Your task to perform on an android device: Show the shopping cart on target.com. Add "alienware area 51" to the cart on target.com Image 0: 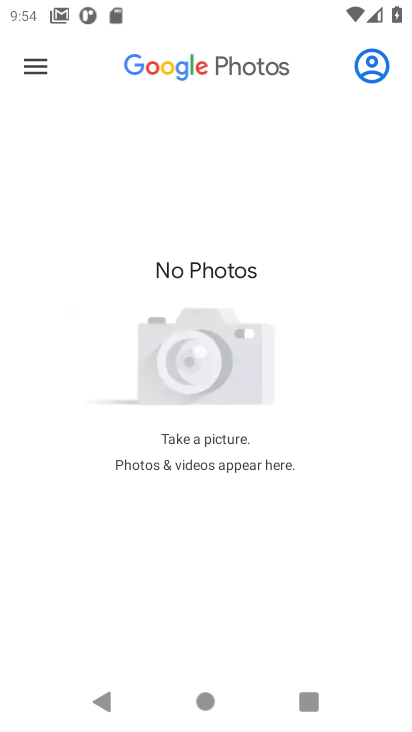
Step 0: press home button
Your task to perform on an android device: Show the shopping cart on target.com. Add "alienware area 51" to the cart on target.com Image 1: 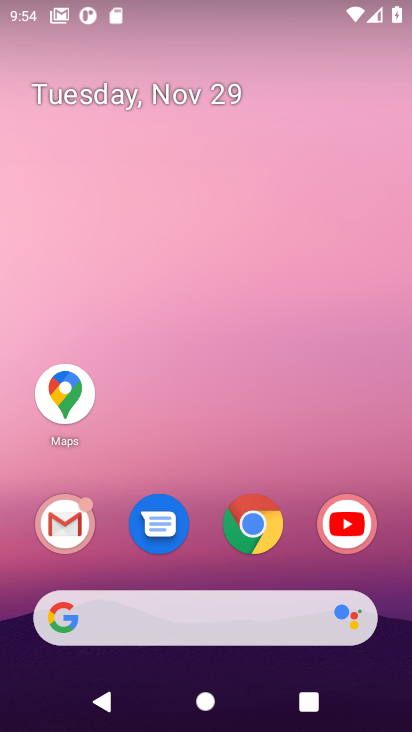
Step 1: click (252, 538)
Your task to perform on an android device: Show the shopping cart on target.com. Add "alienware area 51" to the cart on target.com Image 2: 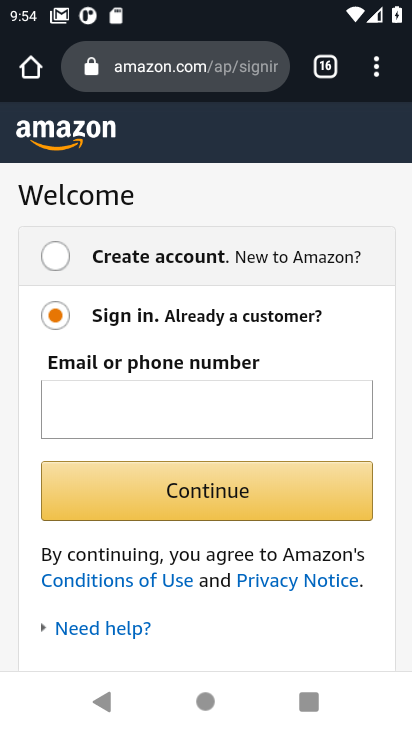
Step 2: click (198, 77)
Your task to perform on an android device: Show the shopping cart on target.com. Add "alienware area 51" to the cart on target.com Image 3: 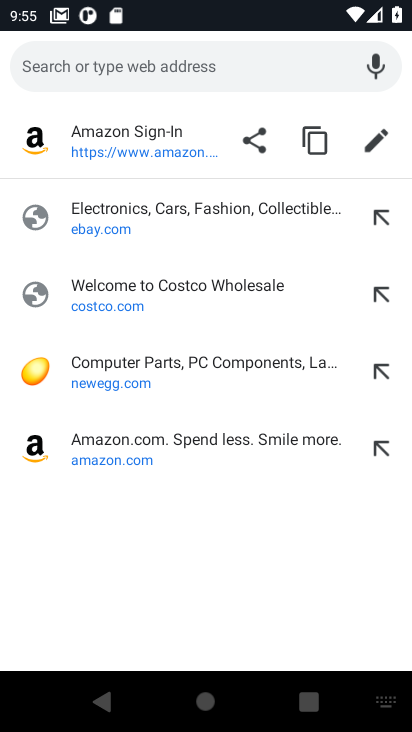
Step 3: type "target.com"
Your task to perform on an android device: Show the shopping cart on target.com. Add "alienware area 51" to the cart on target.com Image 4: 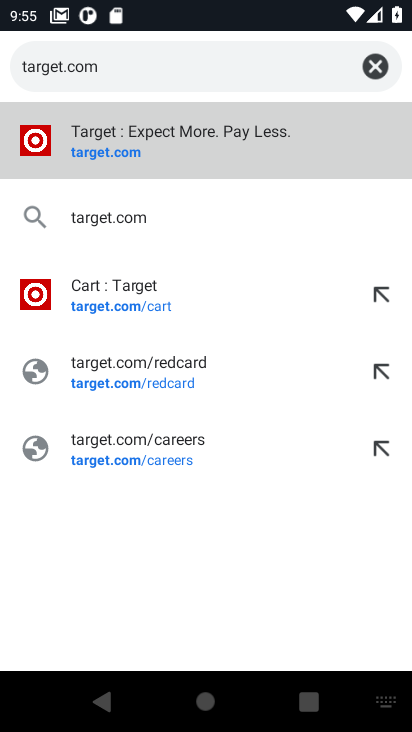
Step 4: click (101, 151)
Your task to perform on an android device: Show the shopping cart on target.com. Add "alienware area 51" to the cart on target.com Image 5: 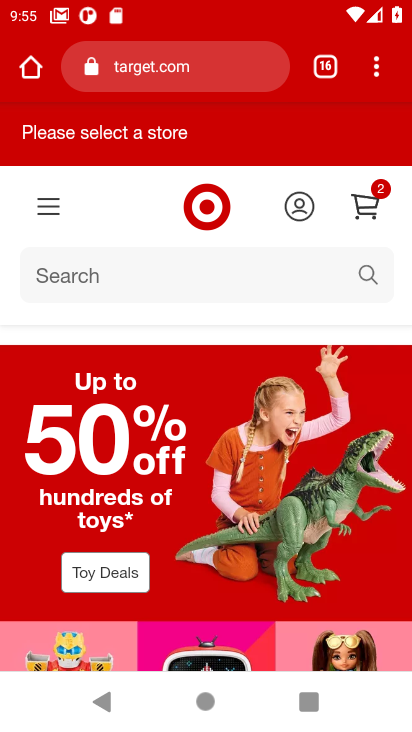
Step 5: click (359, 211)
Your task to perform on an android device: Show the shopping cart on target.com. Add "alienware area 51" to the cart on target.com Image 6: 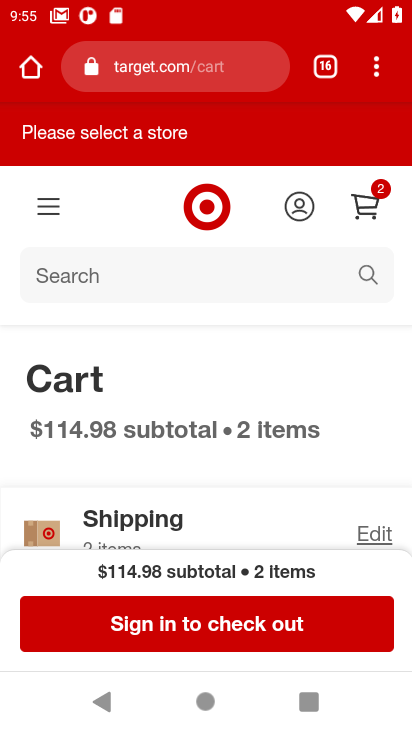
Step 6: drag from (154, 488) to (162, 276)
Your task to perform on an android device: Show the shopping cart on target.com. Add "alienware area 51" to the cart on target.com Image 7: 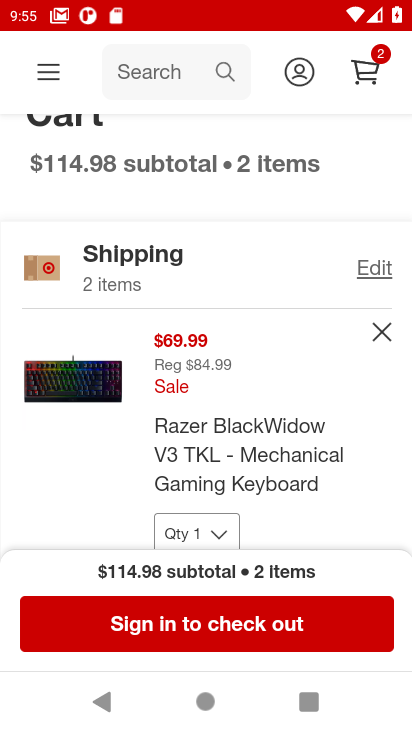
Step 7: click (222, 73)
Your task to perform on an android device: Show the shopping cart on target.com. Add "alienware area 51" to the cart on target.com Image 8: 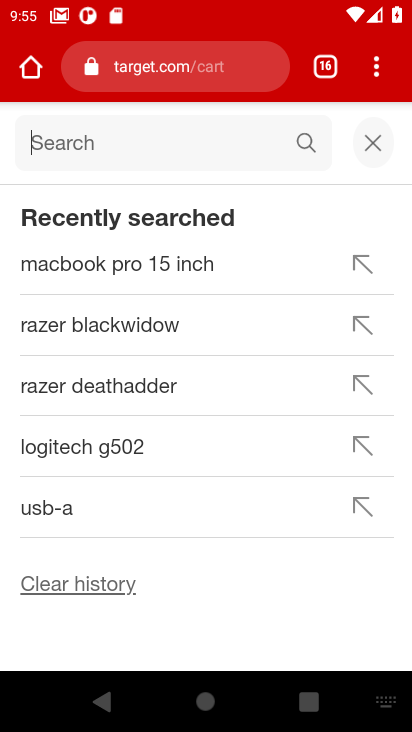
Step 8: type "alienware area 51"
Your task to perform on an android device: Show the shopping cart on target.com. Add "alienware area 51" to the cart on target.com Image 9: 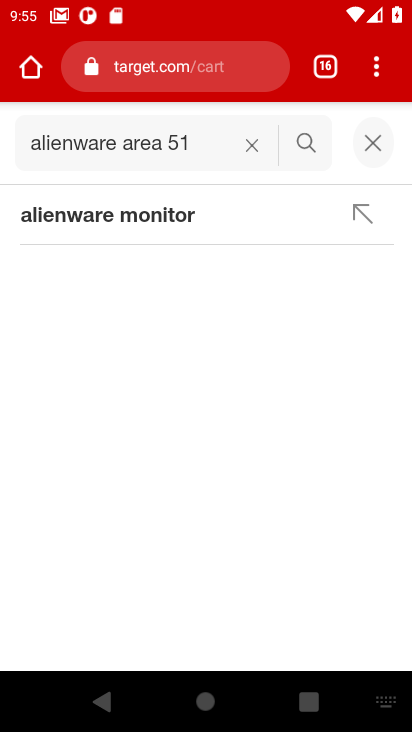
Step 9: click (310, 138)
Your task to perform on an android device: Show the shopping cart on target.com. Add "alienware area 51" to the cart on target.com Image 10: 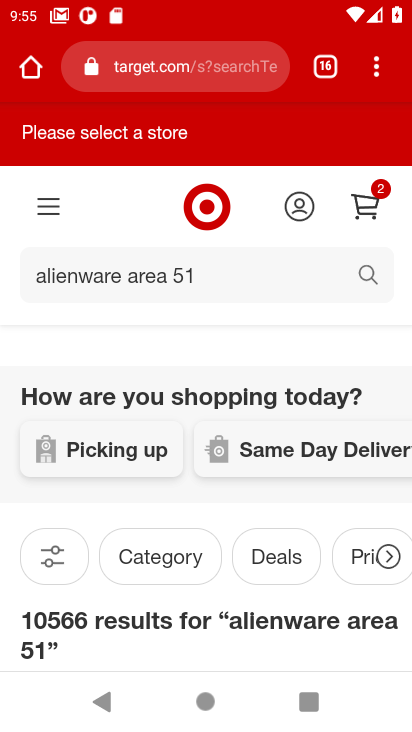
Step 10: task complete